Your task to perform on an android device: Add razer nari to the cart on walmart, then select checkout. Image 0: 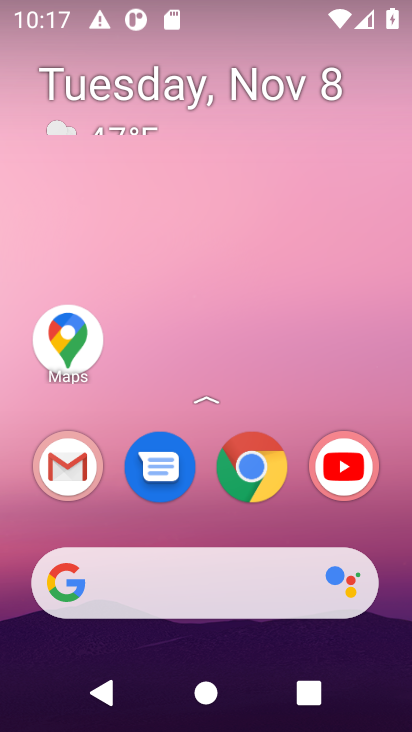
Step 0: click (159, 583)
Your task to perform on an android device: Add razer nari to the cart on walmart, then select checkout. Image 1: 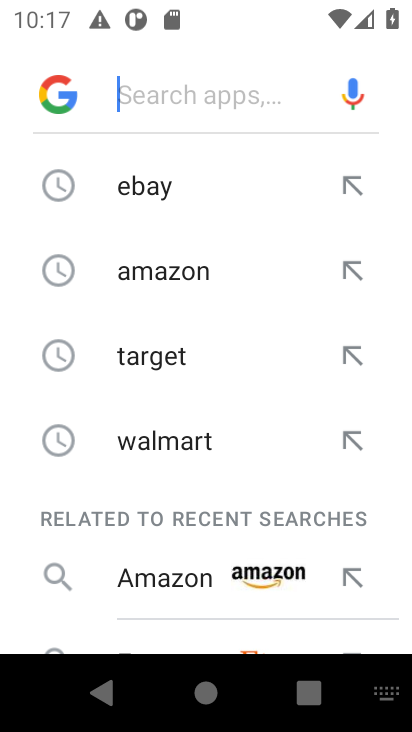
Step 1: click (207, 447)
Your task to perform on an android device: Add razer nari to the cart on walmart, then select checkout. Image 2: 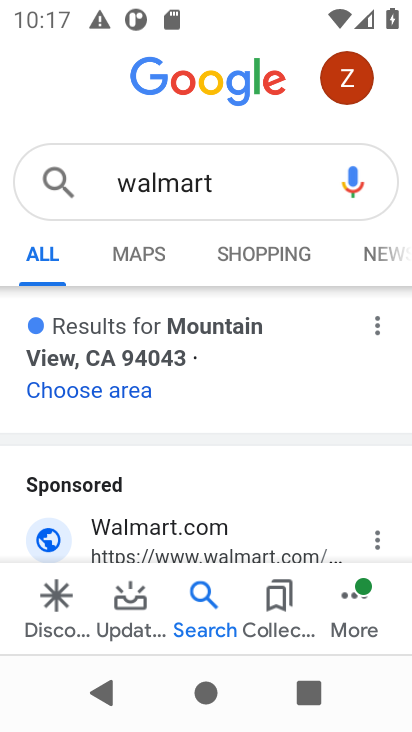
Step 2: click (128, 535)
Your task to perform on an android device: Add razer nari to the cart on walmart, then select checkout. Image 3: 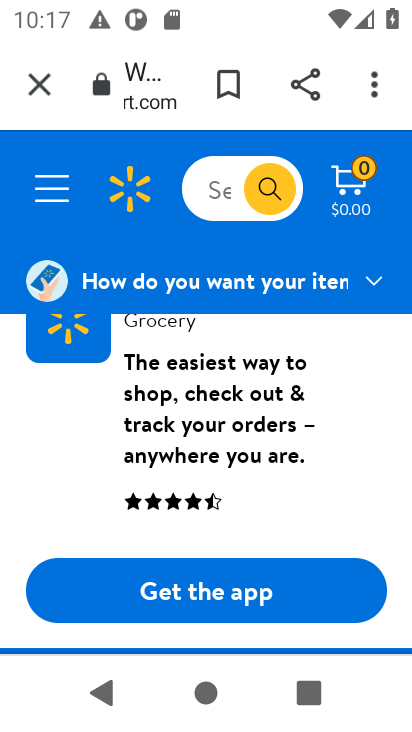
Step 3: task complete